Your task to perform on an android device: turn smart compose on in the gmail app Image 0: 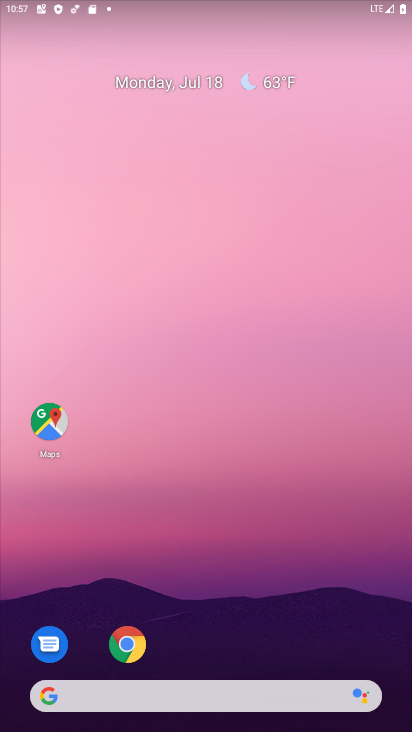
Step 0: drag from (252, 575) to (222, 13)
Your task to perform on an android device: turn smart compose on in the gmail app Image 1: 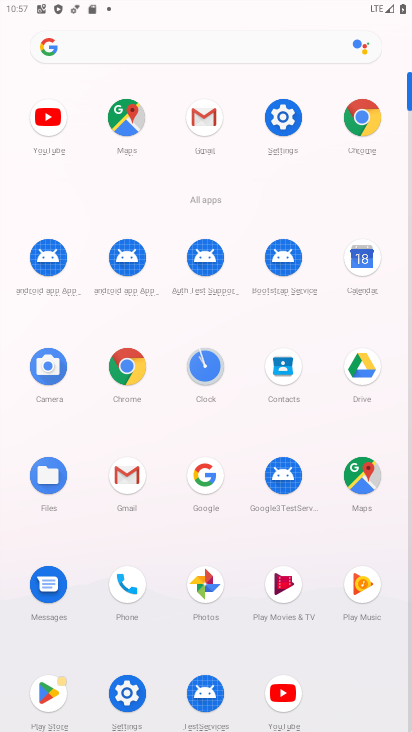
Step 1: click (208, 108)
Your task to perform on an android device: turn smart compose on in the gmail app Image 2: 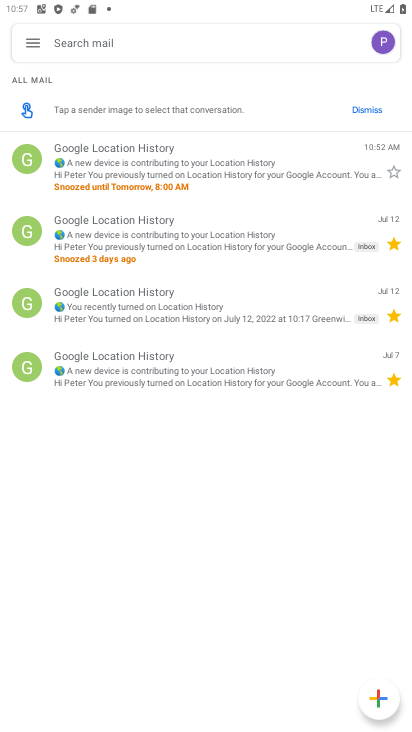
Step 2: click (44, 40)
Your task to perform on an android device: turn smart compose on in the gmail app Image 3: 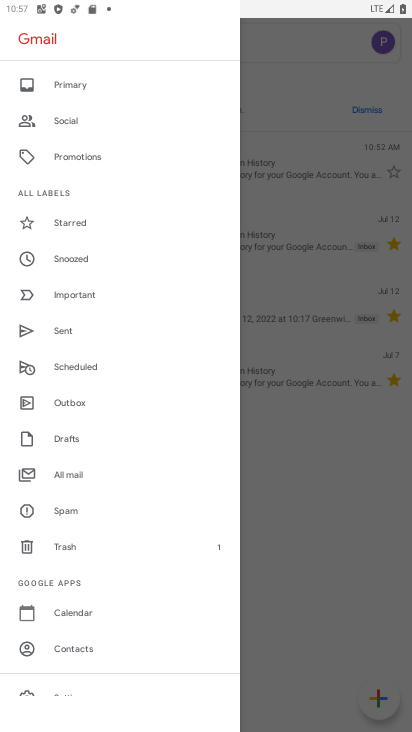
Step 3: click (76, 686)
Your task to perform on an android device: turn smart compose on in the gmail app Image 4: 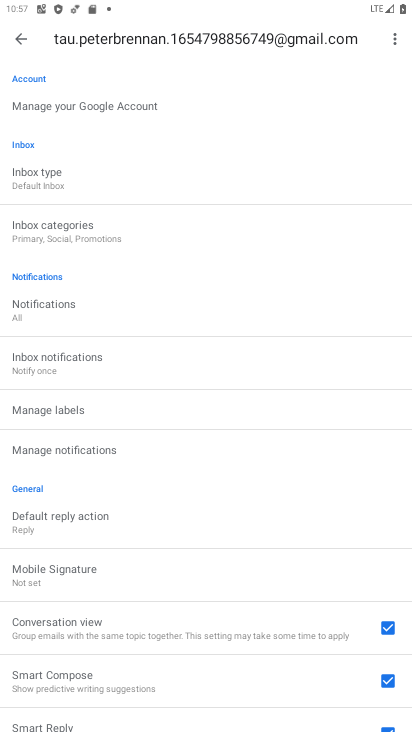
Step 4: task complete